Your task to perform on an android device: How much does a 3 bedroom apartment rent for in Boston? Image 0: 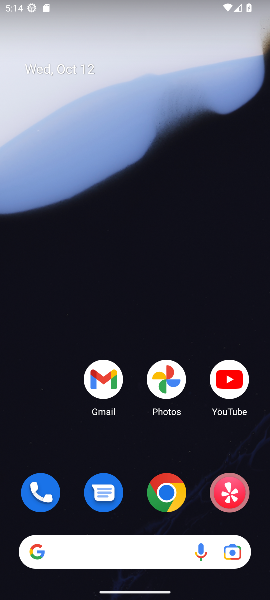
Step 0: click (171, 491)
Your task to perform on an android device: How much does a 3 bedroom apartment rent for in Boston? Image 1: 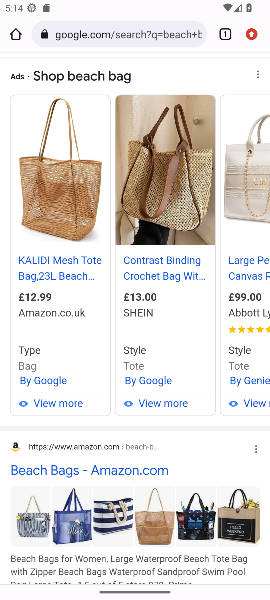
Step 1: click (128, 36)
Your task to perform on an android device: How much does a 3 bedroom apartment rent for in Boston? Image 2: 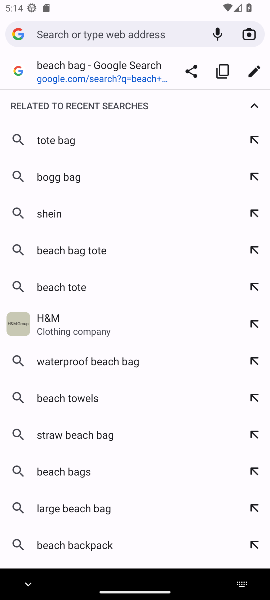
Step 2: type "3 bedroom apartment rent for in Boston"
Your task to perform on an android device: How much does a 3 bedroom apartment rent for in Boston? Image 3: 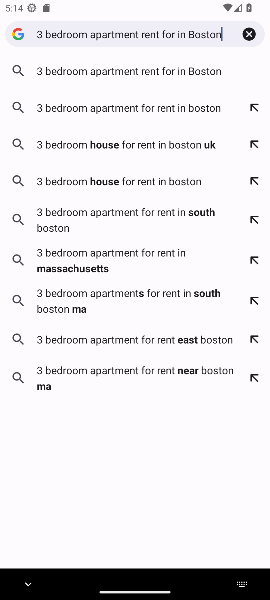
Step 3: click (95, 75)
Your task to perform on an android device: How much does a 3 bedroom apartment rent for in Boston? Image 4: 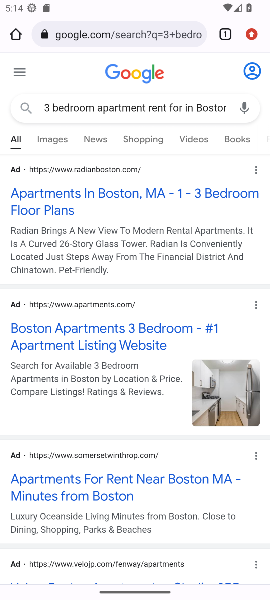
Step 4: drag from (131, 456) to (132, 146)
Your task to perform on an android device: How much does a 3 bedroom apartment rent for in Boston? Image 5: 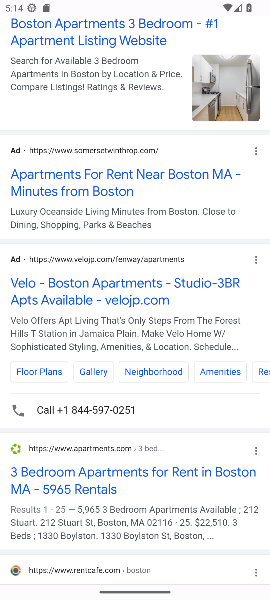
Step 5: click (123, 483)
Your task to perform on an android device: How much does a 3 bedroom apartment rent for in Boston? Image 6: 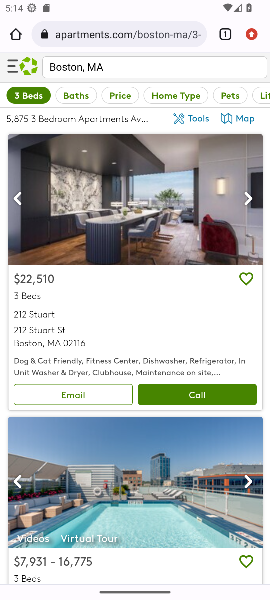
Step 6: task complete